Your task to perform on an android device: open wifi settings Image 0: 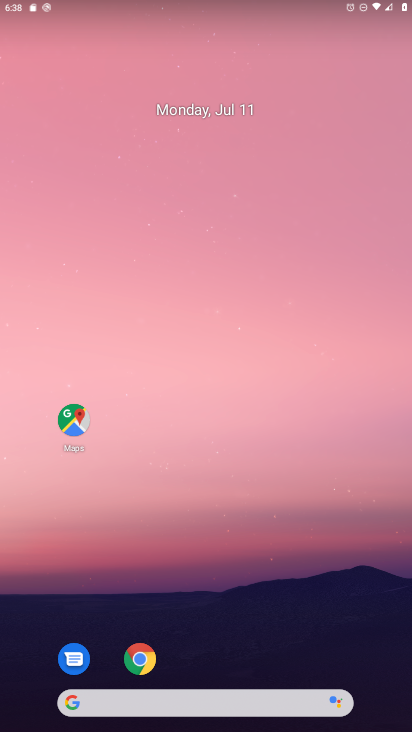
Step 0: drag from (378, 647) to (342, 24)
Your task to perform on an android device: open wifi settings Image 1: 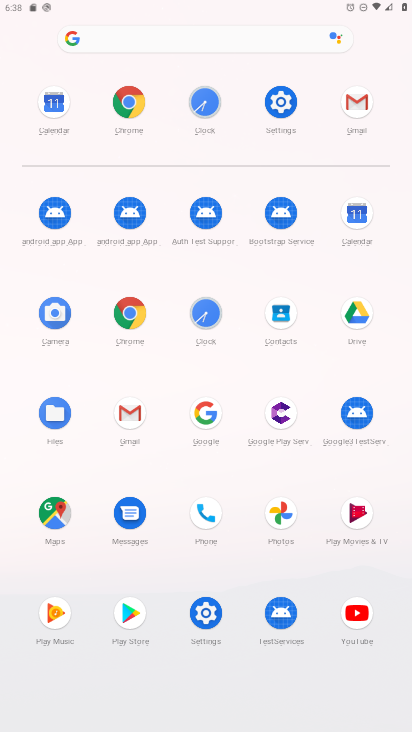
Step 1: click (208, 617)
Your task to perform on an android device: open wifi settings Image 2: 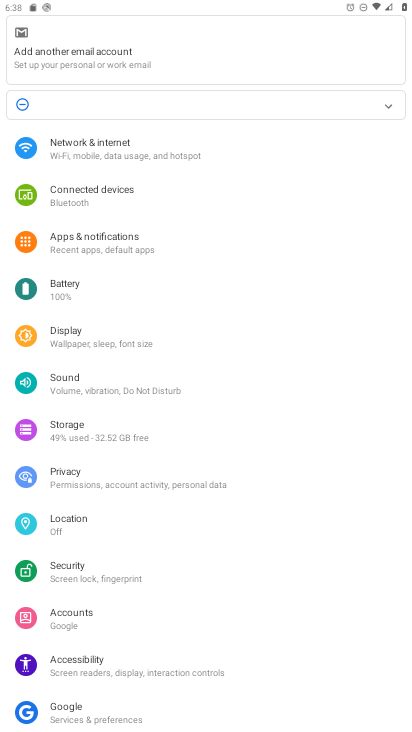
Step 2: click (88, 144)
Your task to perform on an android device: open wifi settings Image 3: 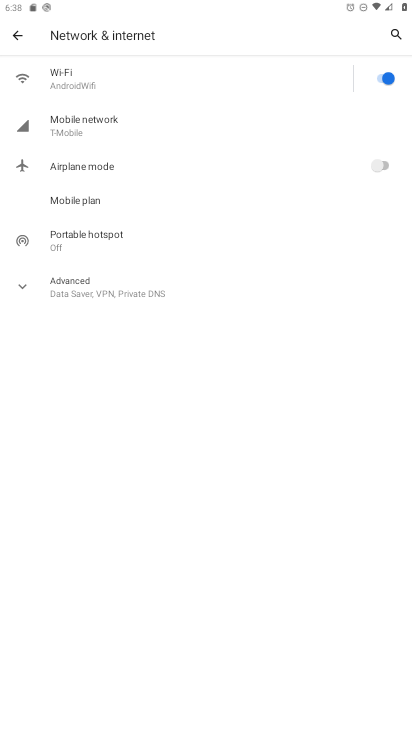
Step 3: click (57, 80)
Your task to perform on an android device: open wifi settings Image 4: 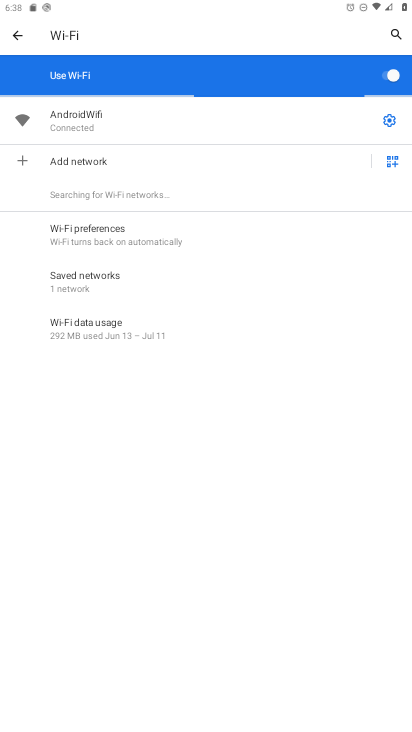
Step 4: task complete